Your task to perform on an android device: Open network settings Image 0: 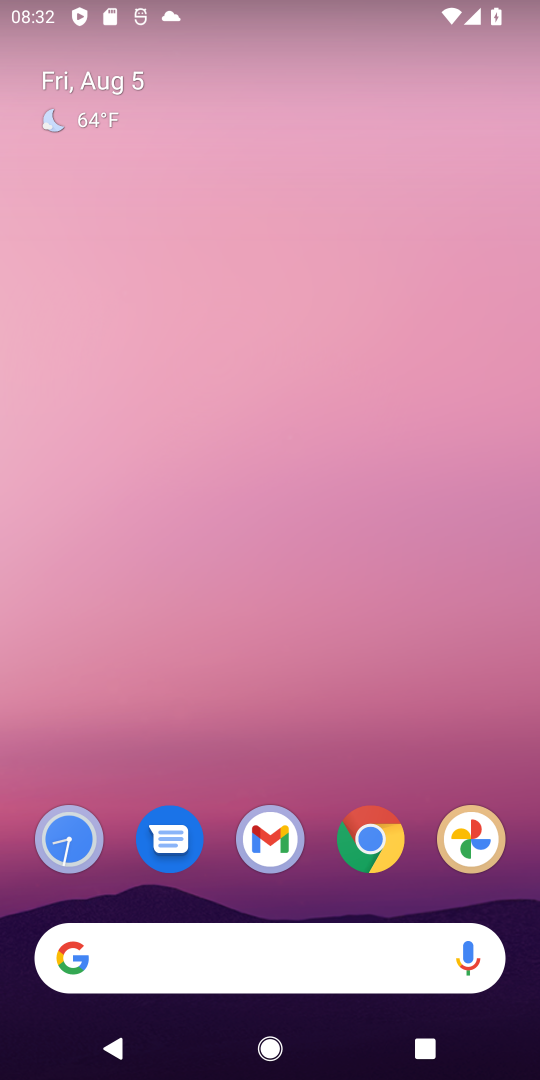
Step 0: drag from (324, 905) to (312, 147)
Your task to perform on an android device: Open network settings Image 1: 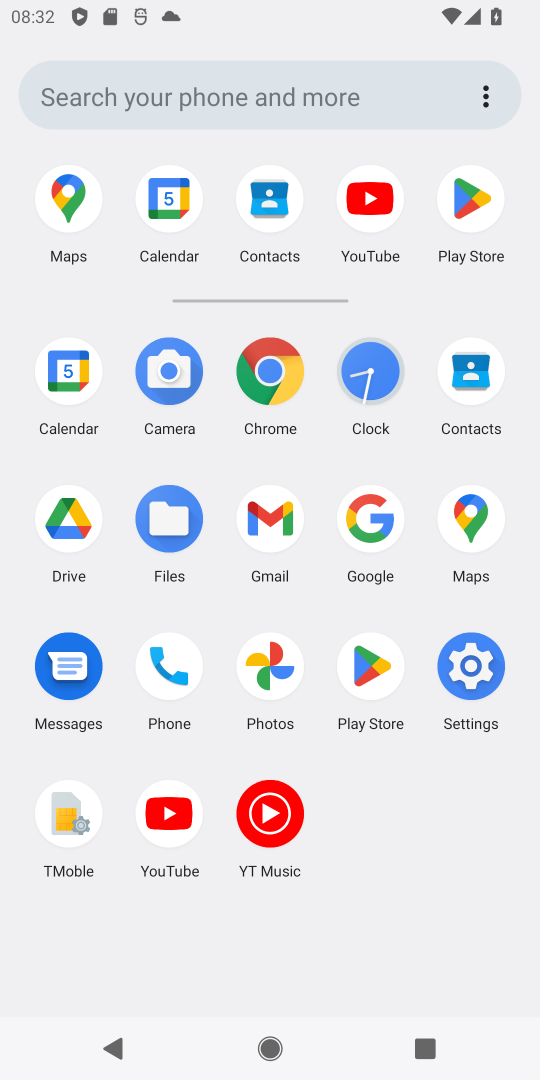
Step 1: click (464, 673)
Your task to perform on an android device: Open network settings Image 2: 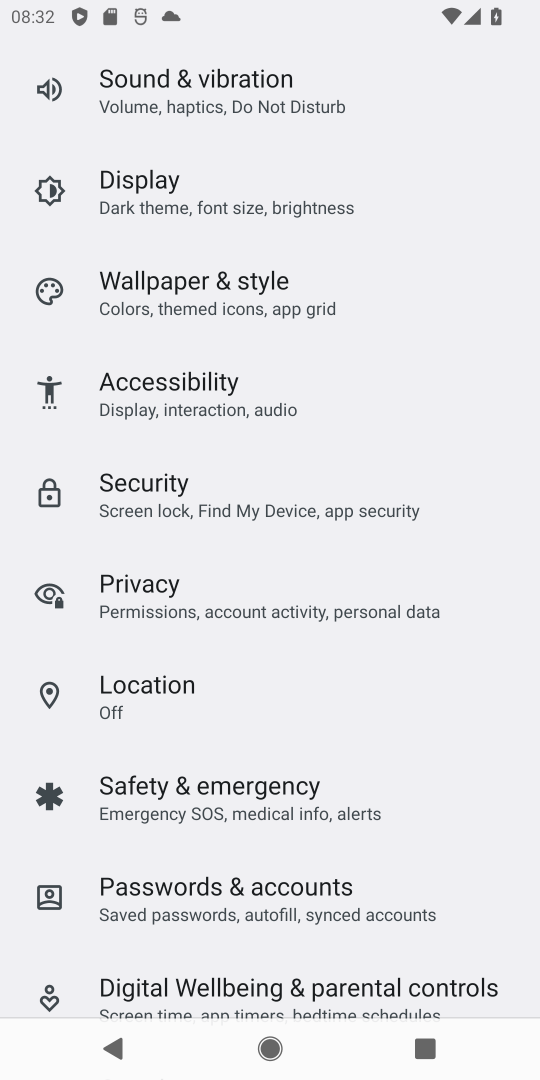
Step 2: drag from (254, 171) to (335, 893)
Your task to perform on an android device: Open network settings Image 3: 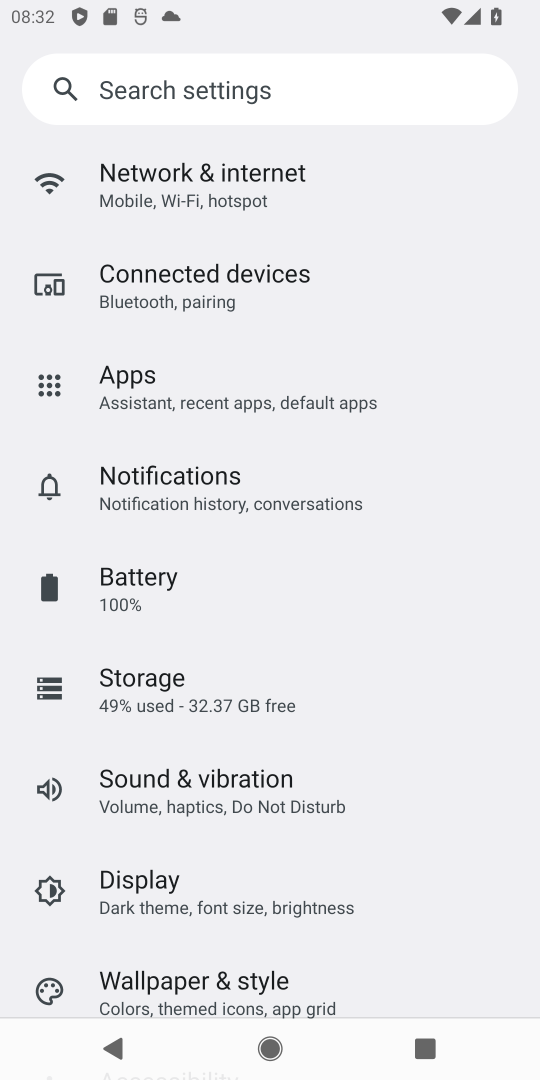
Step 3: click (177, 191)
Your task to perform on an android device: Open network settings Image 4: 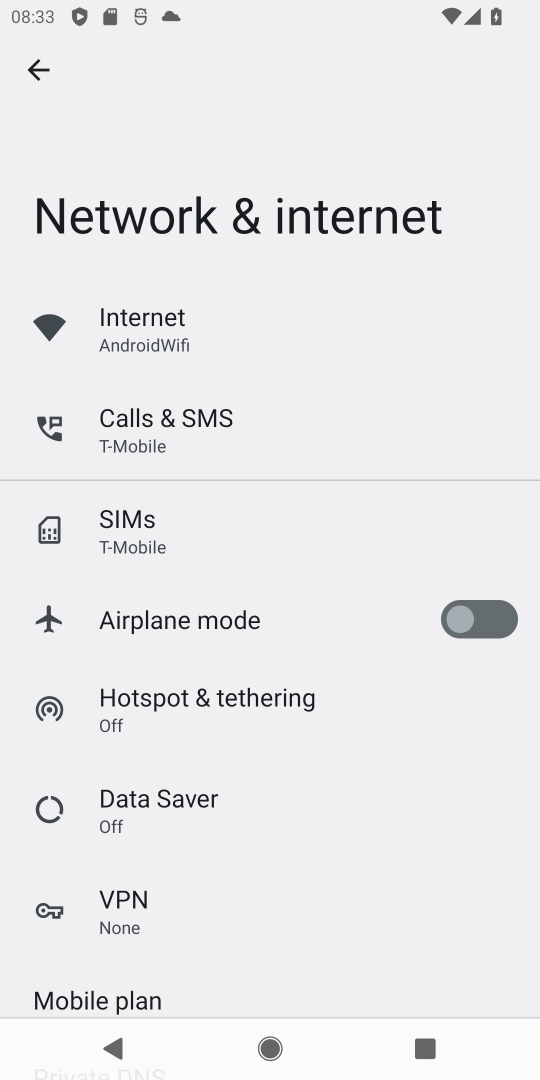
Step 4: task complete